Your task to perform on an android device: toggle data saver in the chrome app Image 0: 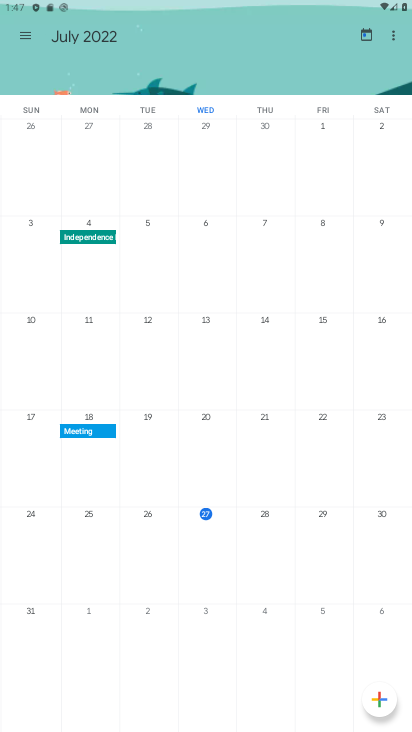
Step 0: task complete